Your task to perform on an android device: snooze an email in the gmail app Image 0: 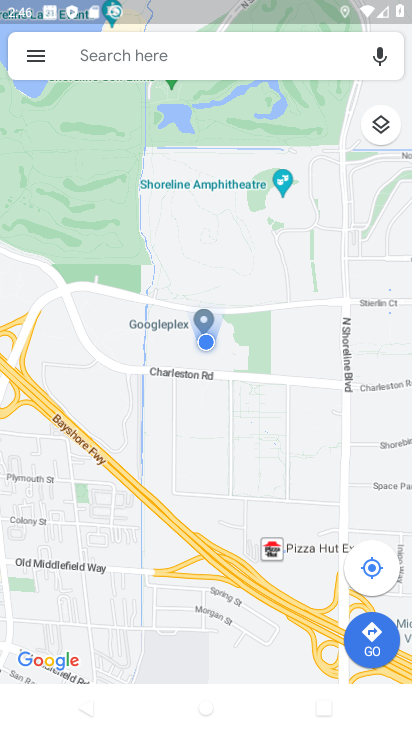
Step 0: press back button
Your task to perform on an android device: snooze an email in the gmail app Image 1: 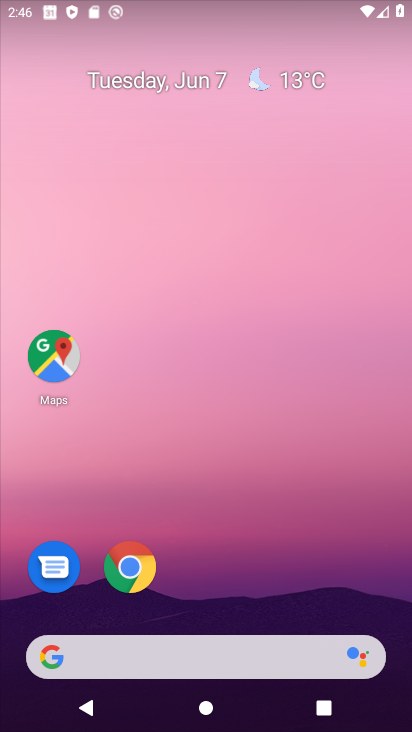
Step 1: drag from (214, 555) to (284, 49)
Your task to perform on an android device: snooze an email in the gmail app Image 2: 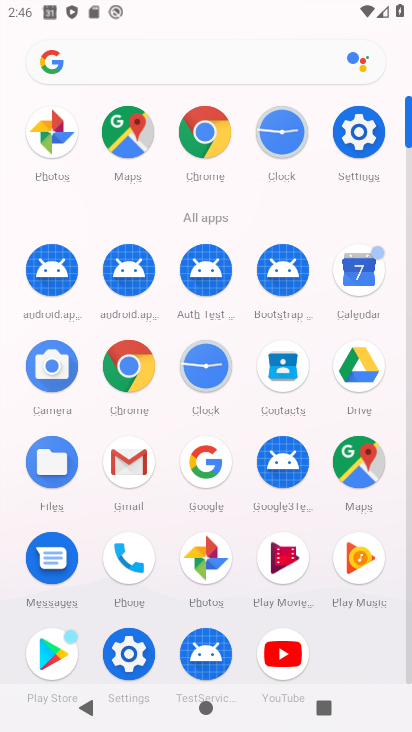
Step 2: click (129, 459)
Your task to perform on an android device: snooze an email in the gmail app Image 3: 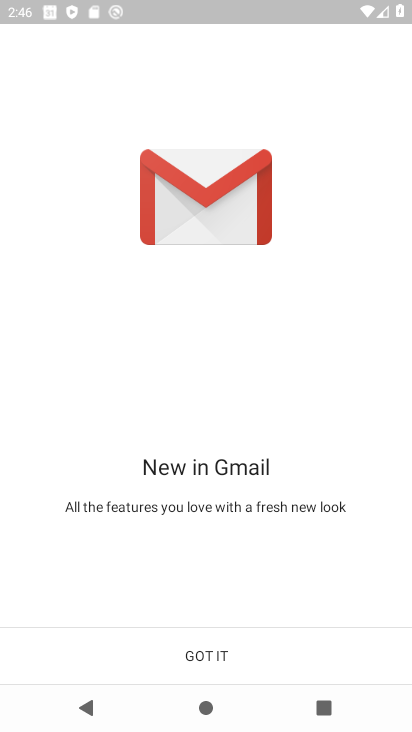
Step 3: click (218, 656)
Your task to perform on an android device: snooze an email in the gmail app Image 4: 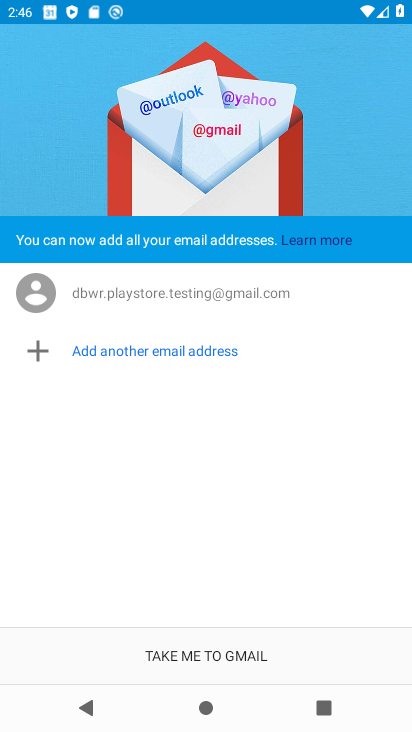
Step 4: click (220, 667)
Your task to perform on an android device: snooze an email in the gmail app Image 5: 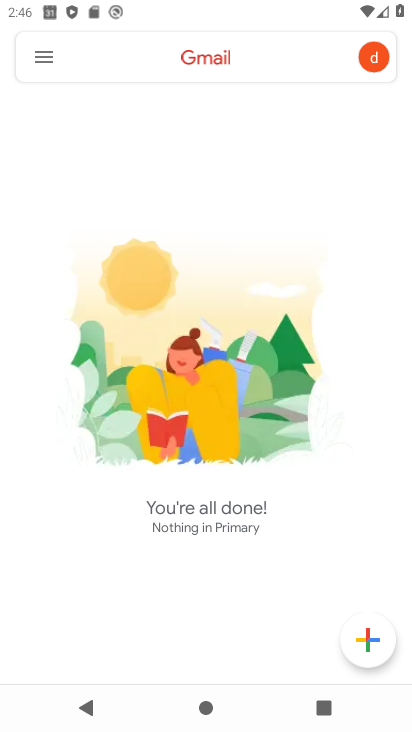
Step 5: click (47, 56)
Your task to perform on an android device: snooze an email in the gmail app Image 6: 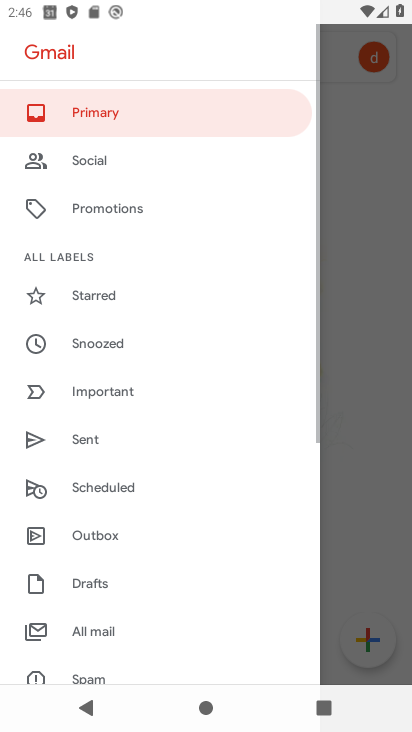
Step 6: click (94, 626)
Your task to perform on an android device: snooze an email in the gmail app Image 7: 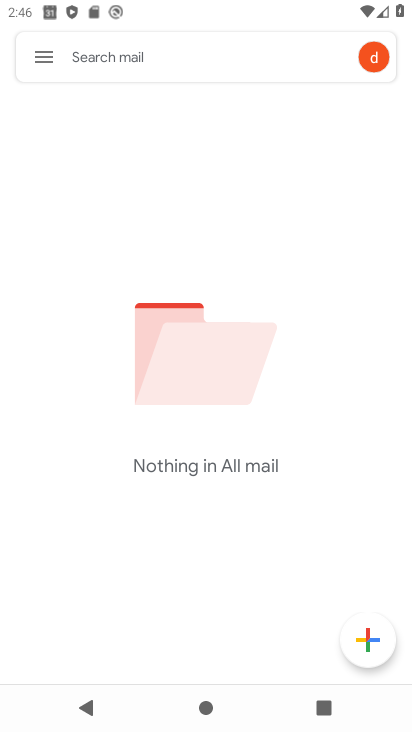
Step 7: task complete